Your task to perform on an android device: Search for vegetarian restaurants on Maps Image 0: 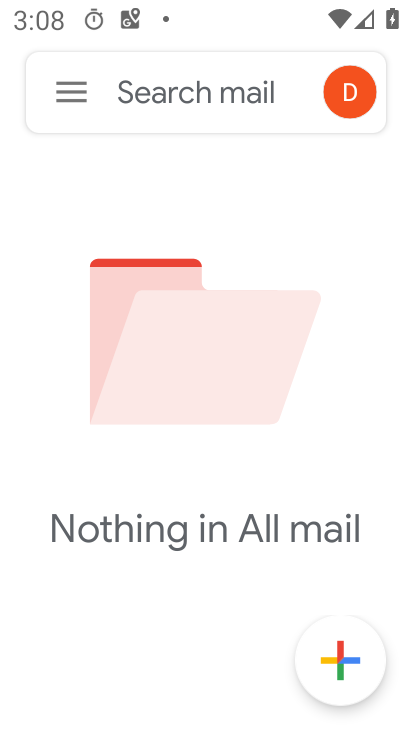
Step 0: press home button
Your task to perform on an android device: Search for vegetarian restaurants on Maps Image 1: 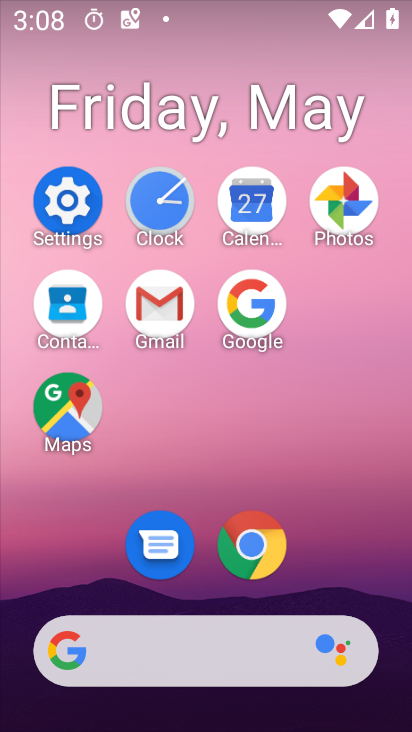
Step 1: click (76, 405)
Your task to perform on an android device: Search for vegetarian restaurants on Maps Image 2: 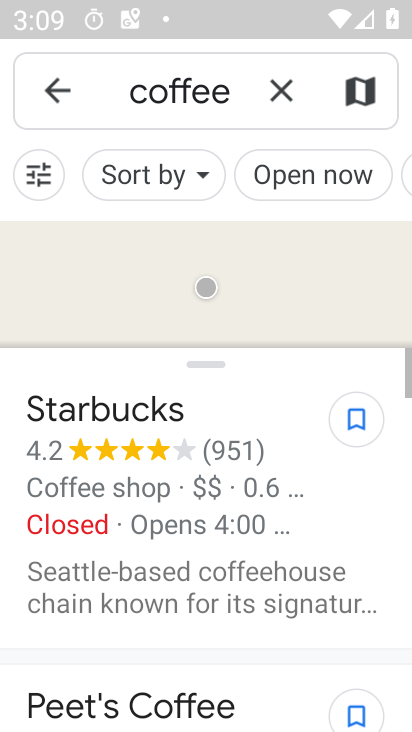
Step 2: click (279, 94)
Your task to perform on an android device: Search for vegetarian restaurants on Maps Image 3: 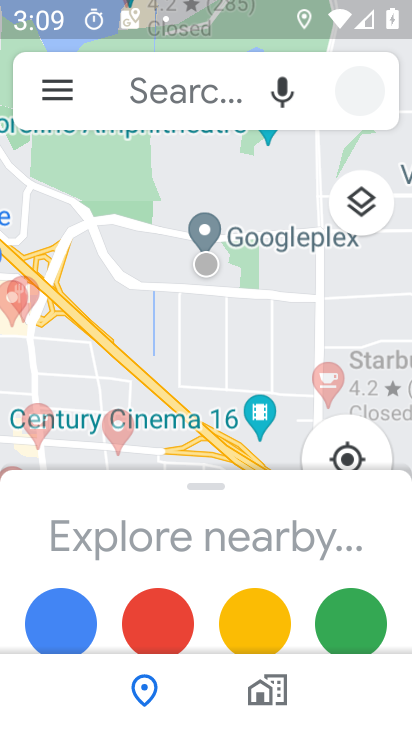
Step 3: click (202, 97)
Your task to perform on an android device: Search for vegetarian restaurants on Maps Image 4: 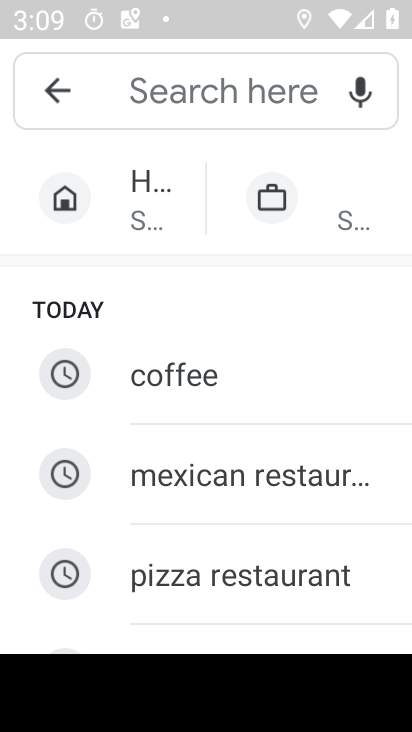
Step 4: drag from (311, 568) to (294, 218)
Your task to perform on an android device: Search for vegetarian restaurants on Maps Image 5: 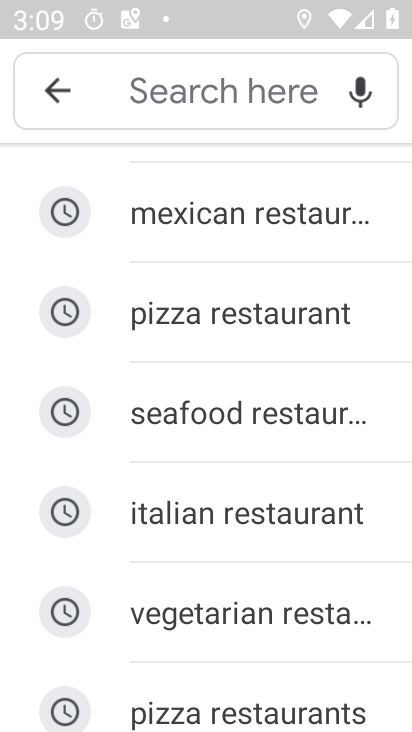
Step 5: click (228, 591)
Your task to perform on an android device: Search for vegetarian restaurants on Maps Image 6: 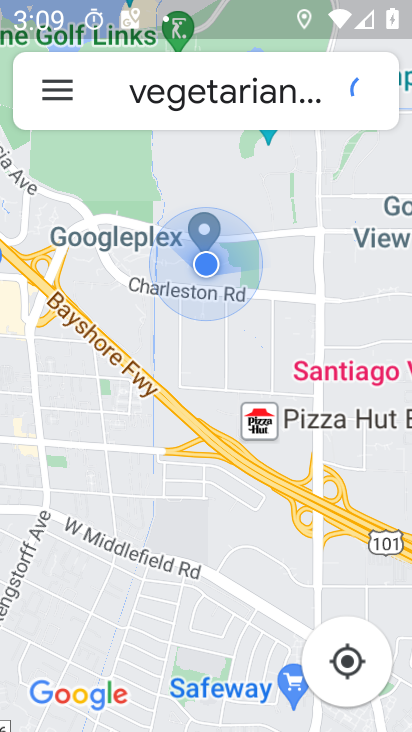
Step 6: task complete